Your task to perform on an android device: change notifications settings Image 0: 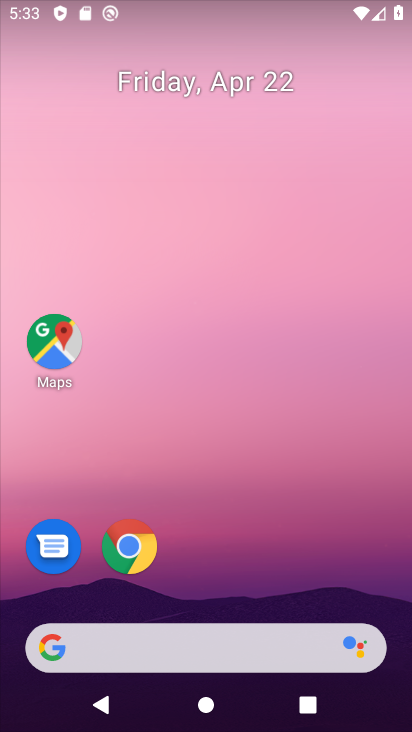
Step 0: drag from (220, 597) to (201, 145)
Your task to perform on an android device: change notifications settings Image 1: 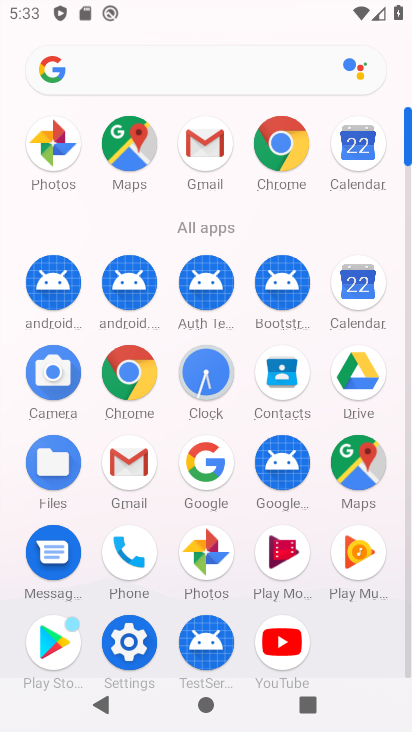
Step 1: click (129, 645)
Your task to perform on an android device: change notifications settings Image 2: 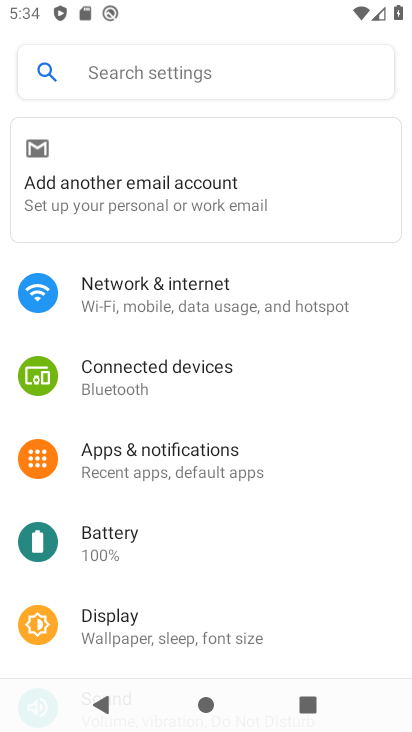
Step 2: drag from (228, 570) to (179, 282)
Your task to perform on an android device: change notifications settings Image 3: 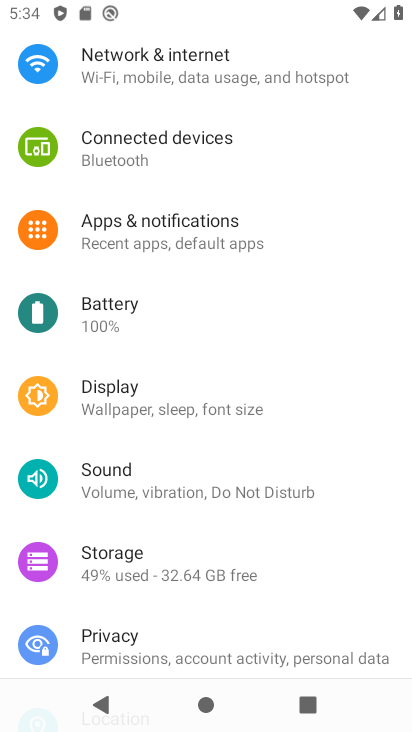
Step 3: click (128, 250)
Your task to perform on an android device: change notifications settings Image 4: 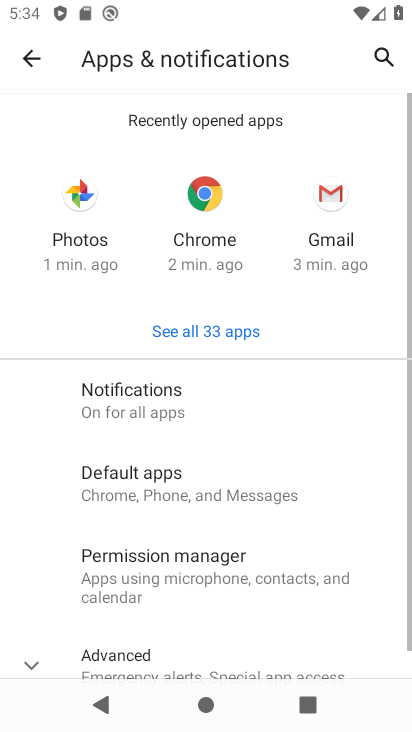
Step 4: click (130, 410)
Your task to perform on an android device: change notifications settings Image 5: 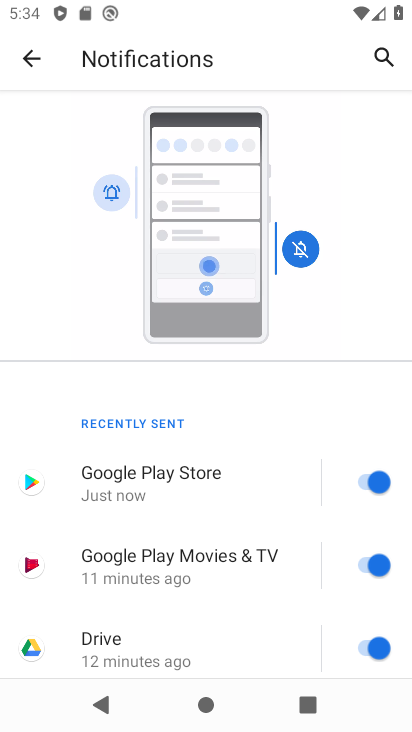
Step 5: drag from (199, 629) to (214, 316)
Your task to perform on an android device: change notifications settings Image 6: 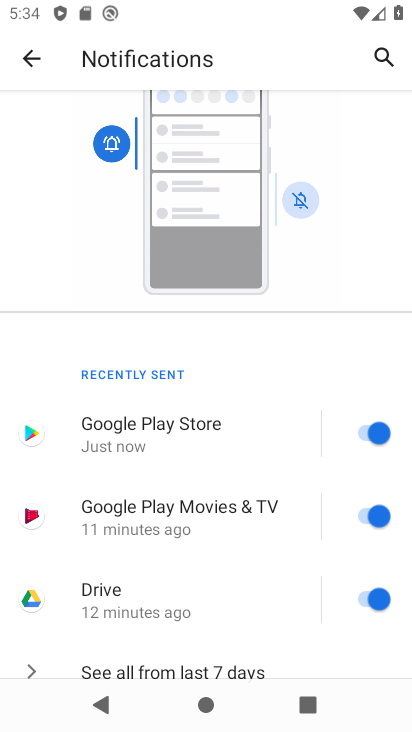
Step 6: drag from (201, 646) to (254, 267)
Your task to perform on an android device: change notifications settings Image 7: 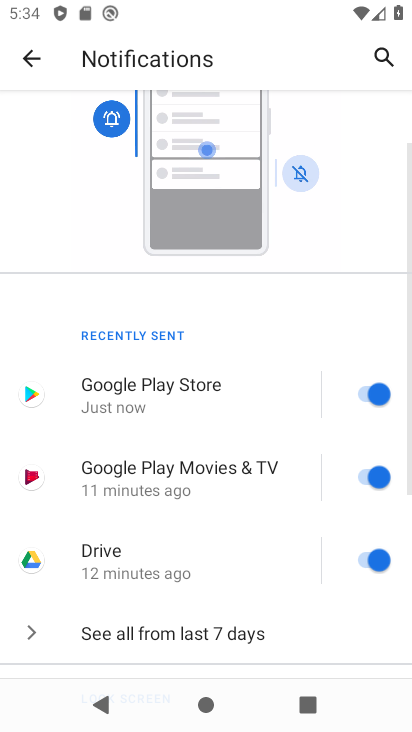
Step 7: drag from (215, 622) to (267, 275)
Your task to perform on an android device: change notifications settings Image 8: 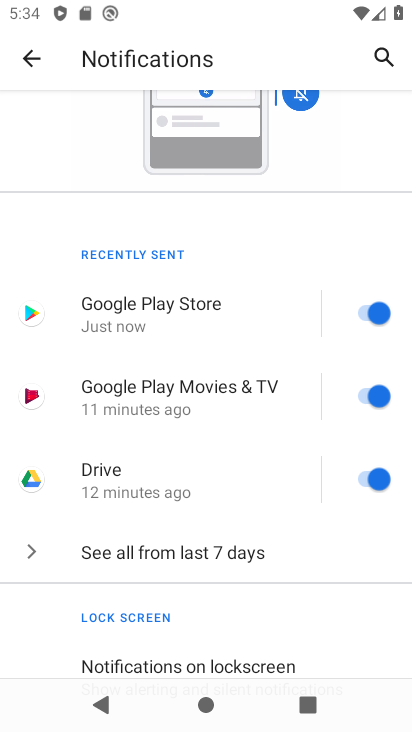
Step 8: drag from (206, 625) to (265, 210)
Your task to perform on an android device: change notifications settings Image 9: 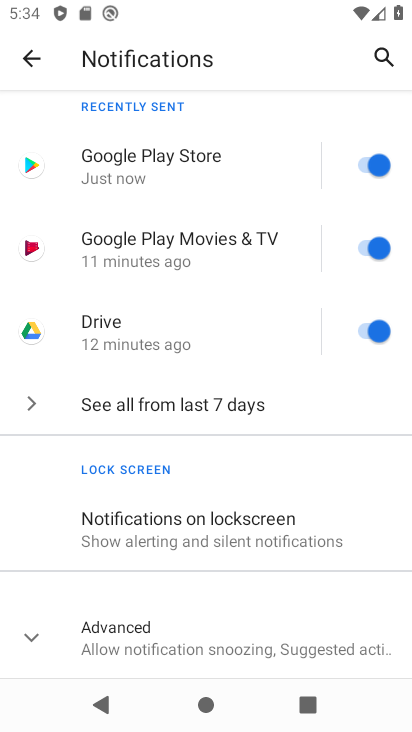
Step 9: drag from (208, 539) to (288, 270)
Your task to perform on an android device: change notifications settings Image 10: 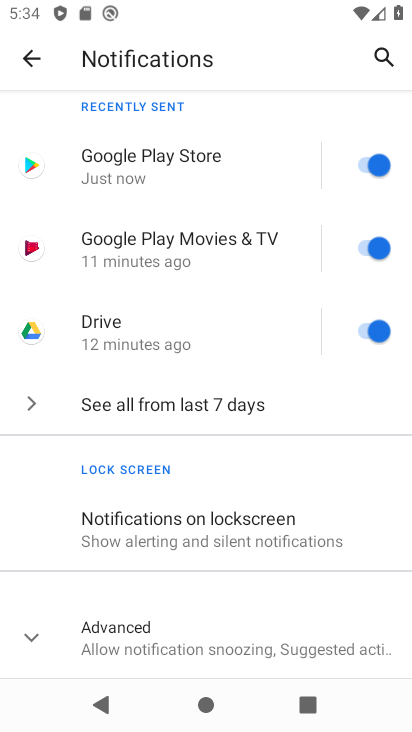
Step 10: click (120, 545)
Your task to perform on an android device: change notifications settings Image 11: 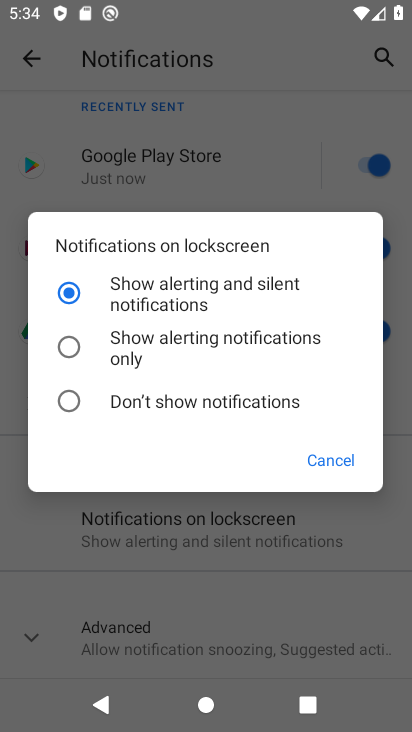
Step 11: click (71, 405)
Your task to perform on an android device: change notifications settings Image 12: 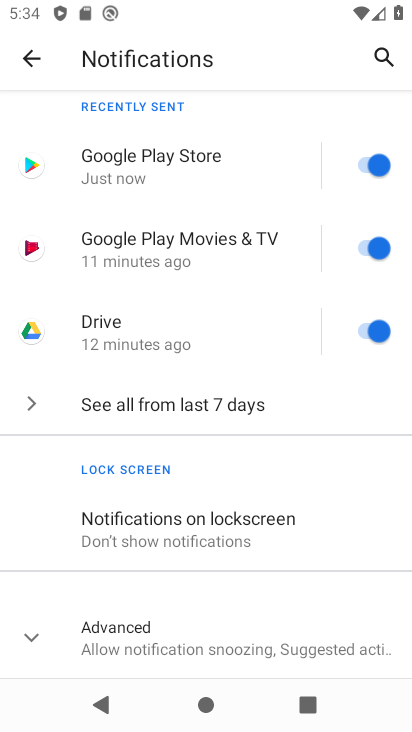
Step 12: task complete